Your task to perform on an android device: toggle improve location accuracy Image 0: 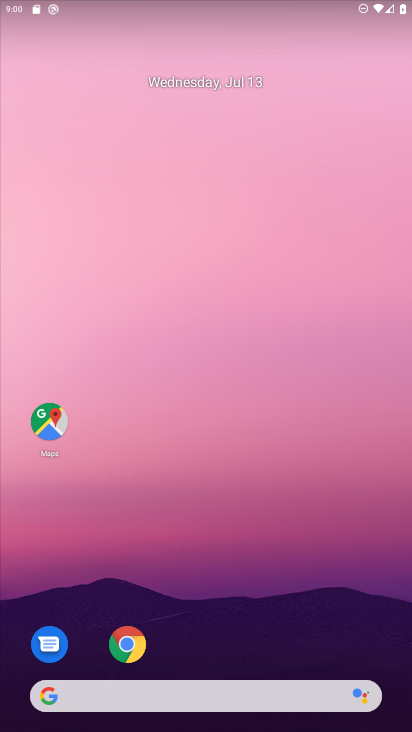
Step 0: press home button
Your task to perform on an android device: toggle improve location accuracy Image 1: 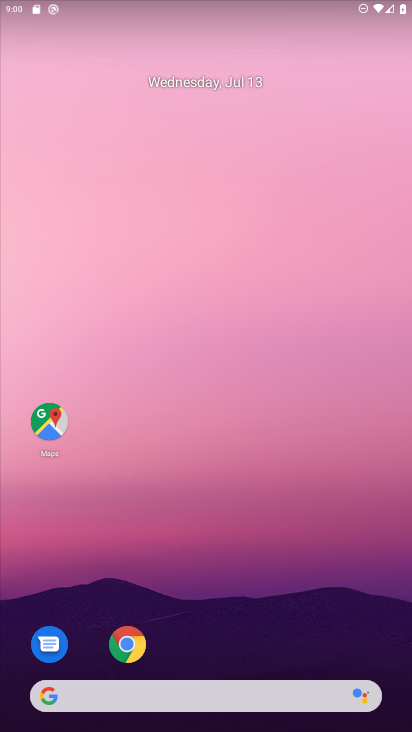
Step 1: drag from (230, 581) to (193, 50)
Your task to perform on an android device: toggle improve location accuracy Image 2: 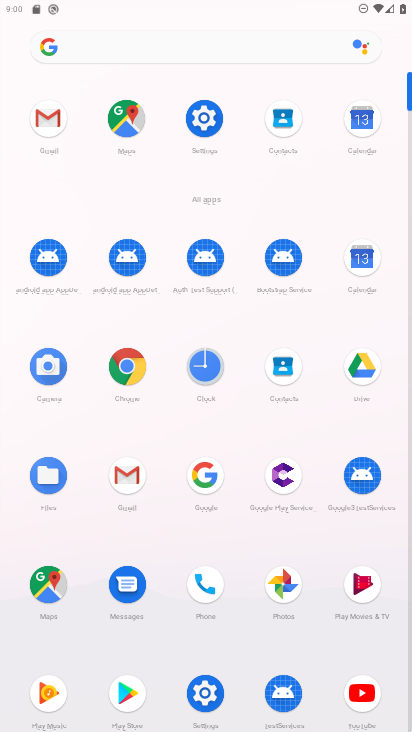
Step 2: click (215, 109)
Your task to perform on an android device: toggle improve location accuracy Image 3: 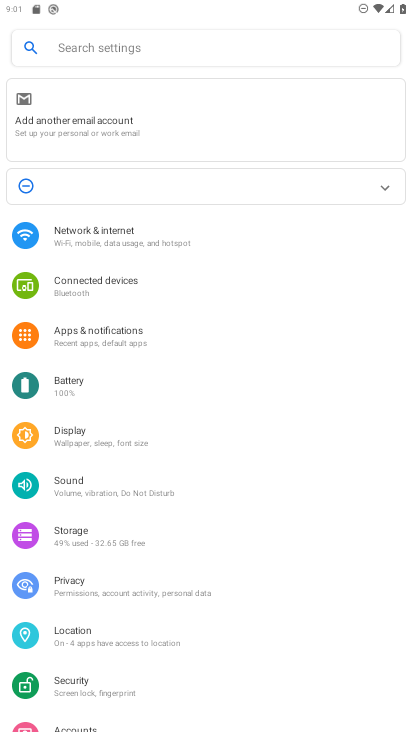
Step 3: click (85, 636)
Your task to perform on an android device: toggle improve location accuracy Image 4: 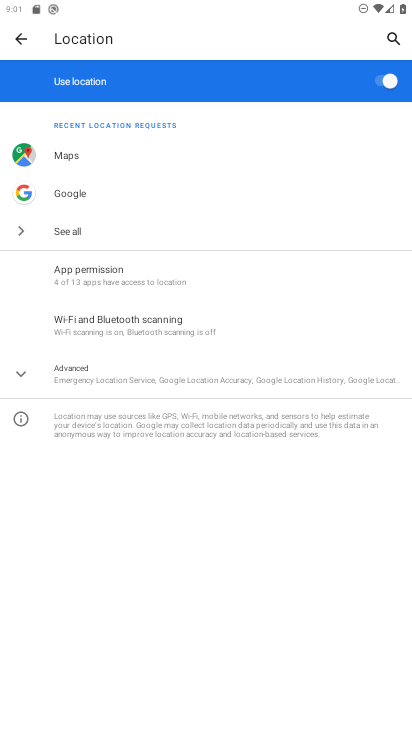
Step 4: click (19, 374)
Your task to perform on an android device: toggle improve location accuracy Image 5: 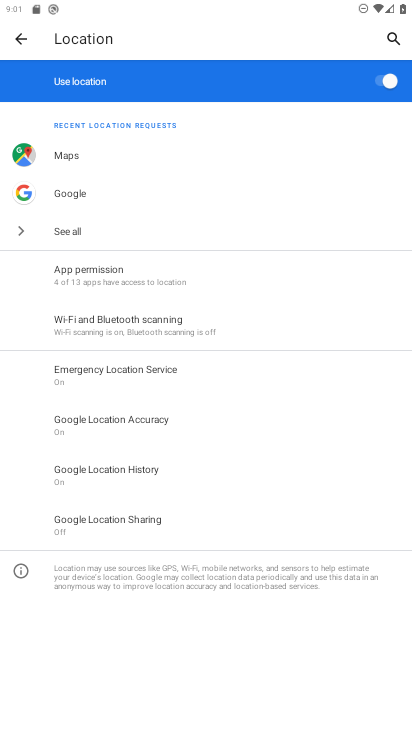
Step 5: click (126, 431)
Your task to perform on an android device: toggle improve location accuracy Image 6: 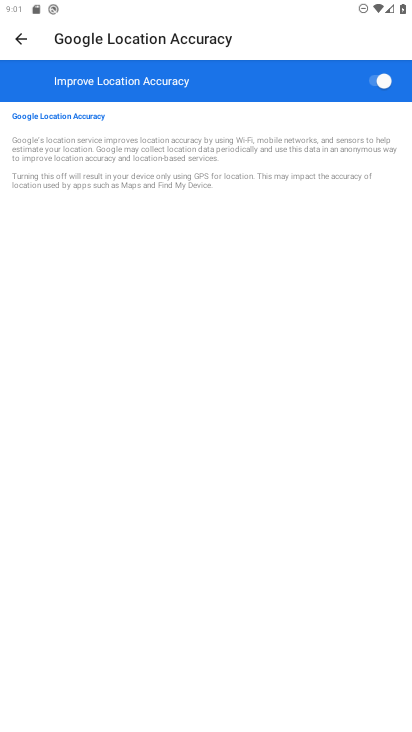
Step 6: click (374, 77)
Your task to perform on an android device: toggle improve location accuracy Image 7: 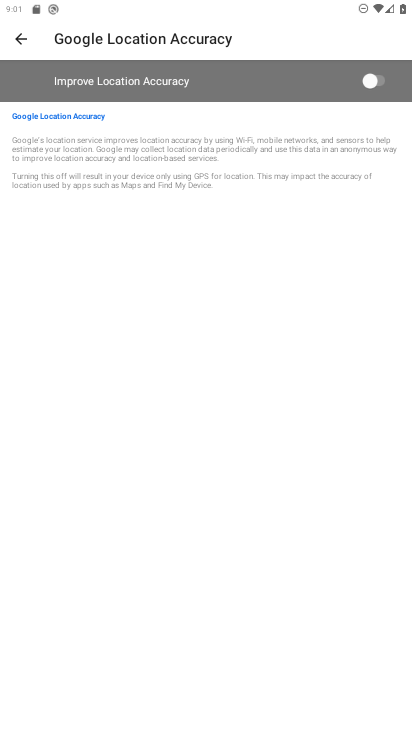
Step 7: task complete